Your task to perform on an android device: delete the emails in spam in the gmail app Image 0: 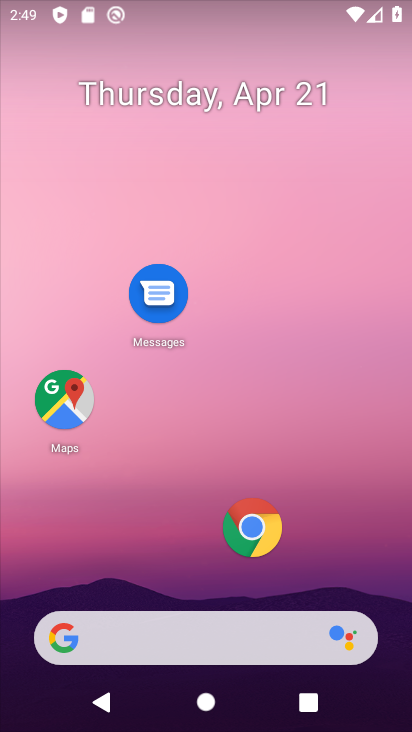
Step 0: drag from (222, 477) to (253, 185)
Your task to perform on an android device: delete the emails in spam in the gmail app Image 1: 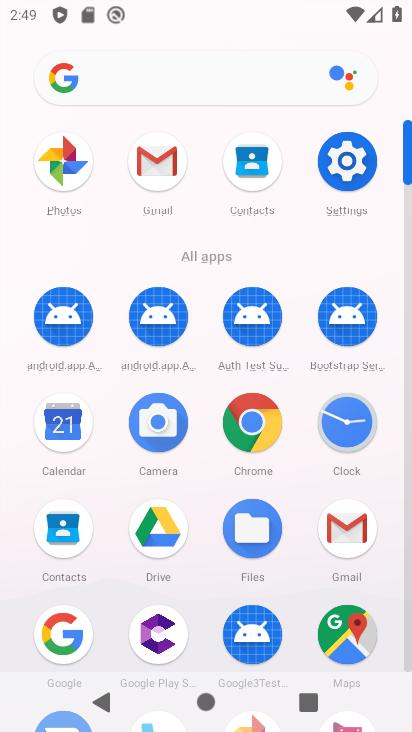
Step 1: click (163, 170)
Your task to perform on an android device: delete the emails in spam in the gmail app Image 2: 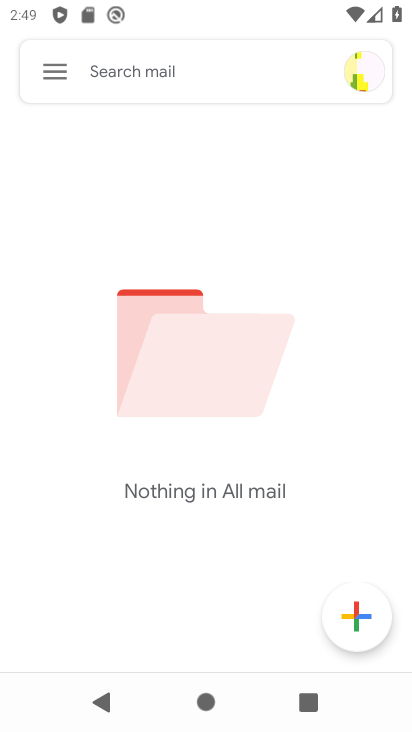
Step 2: click (53, 64)
Your task to perform on an android device: delete the emails in spam in the gmail app Image 3: 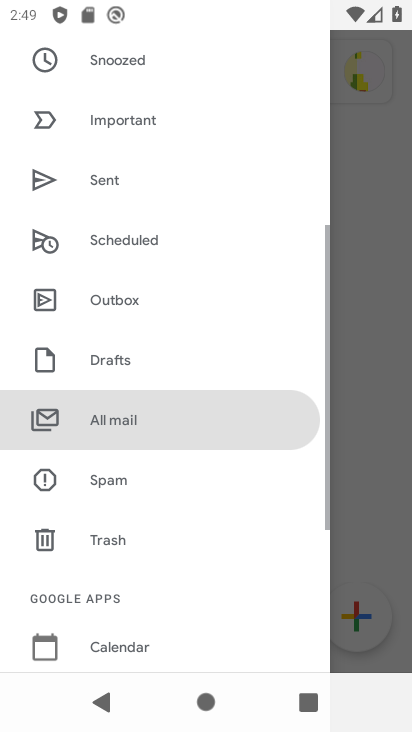
Step 3: click (118, 486)
Your task to perform on an android device: delete the emails in spam in the gmail app Image 4: 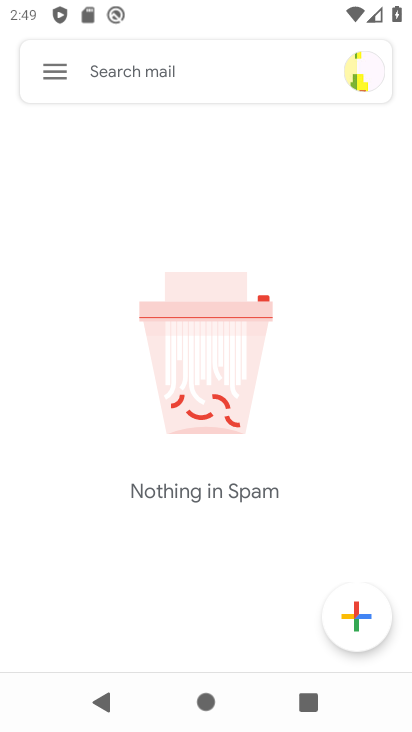
Step 4: task complete